Your task to perform on an android device: delete a single message in the gmail app Image 0: 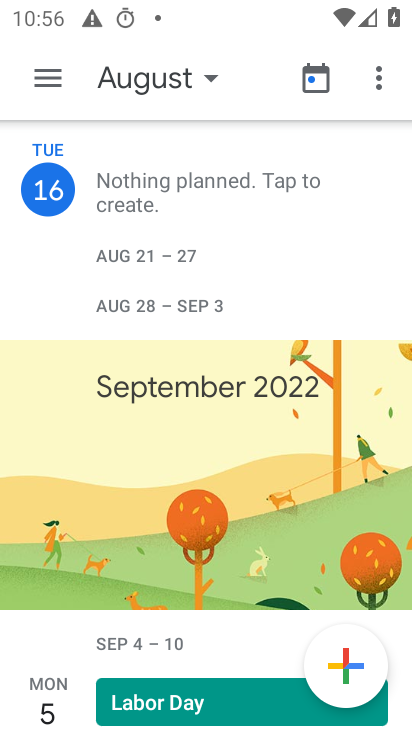
Step 0: press home button
Your task to perform on an android device: delete a single message in the gmail app Image 1: 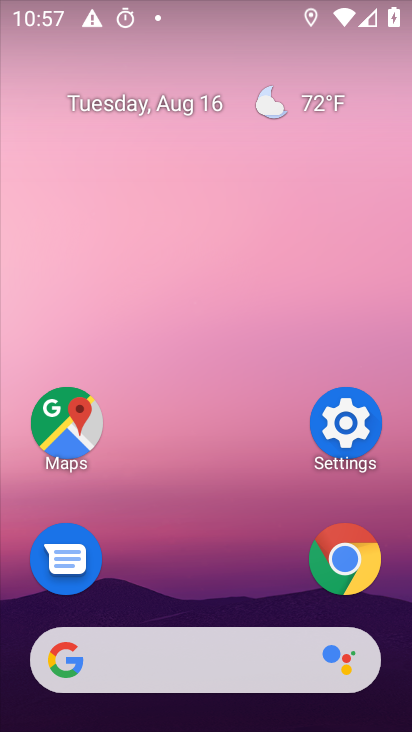
Step 1: drag from (246, 615) to (225, 87)
Your task to perform on an android device: delete a single message in the gmail app Image 2: 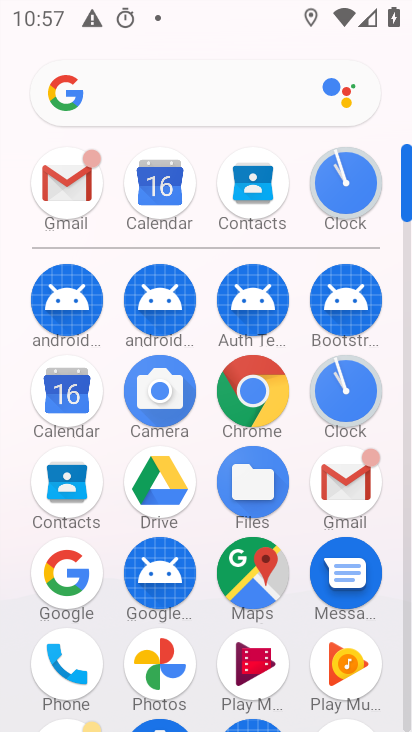
Step 2: click (58, 195)
Your task to perform on an android device: delete a single message in the gmail app Image 3: 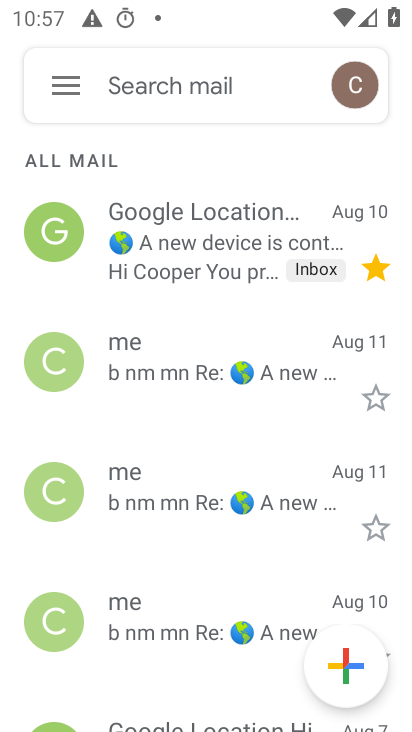
Step 3: click (58, 235)
Your task to perform on an android device: delete a single message in the gmail app Image 4: 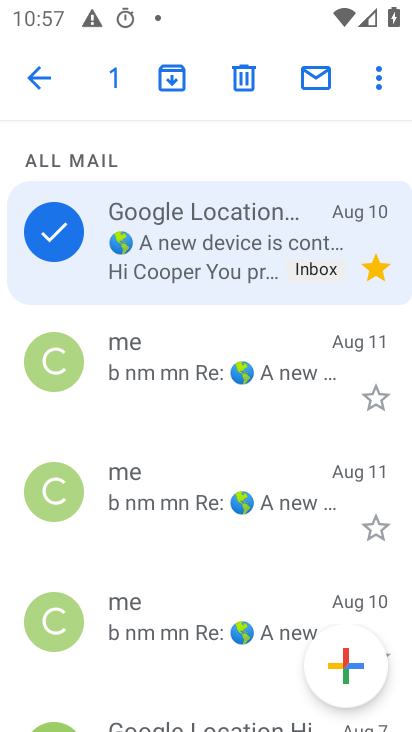
Step 4: click (247, 79)
Your task to perform on an android device: delete a single message in the gmail app Image 5: 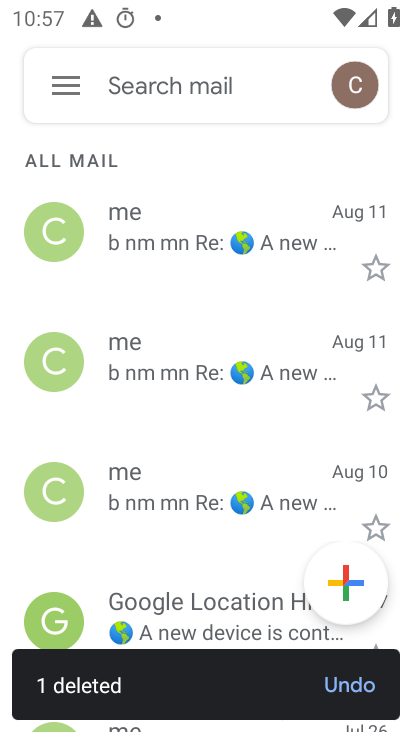
Step 5: task complete